Your task to perform on an android device: Open Google Image 0: 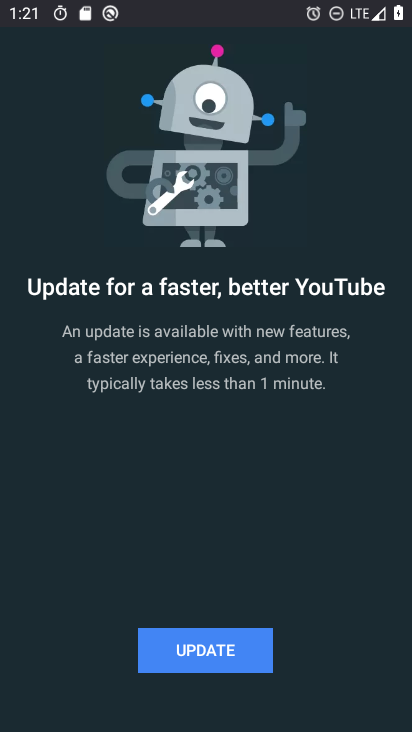
Step 0: press home button
Your task to perform on an android device: Open Google Image 1: 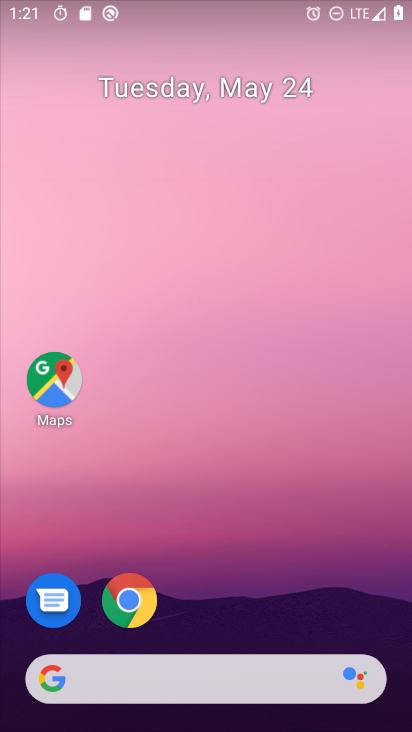
Step 1: drag from (237, 553) to (262, 102)
Your task to perform on an android device: Open Google Image 2: 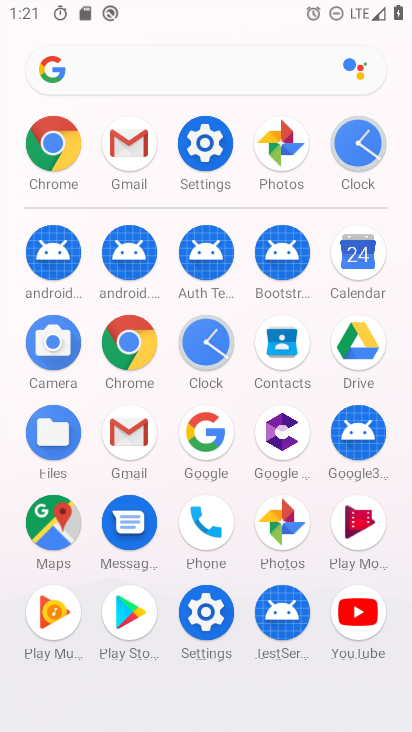
Step 2: click (215, 443)
Your task to perform on an android device: Open Google Image 3: 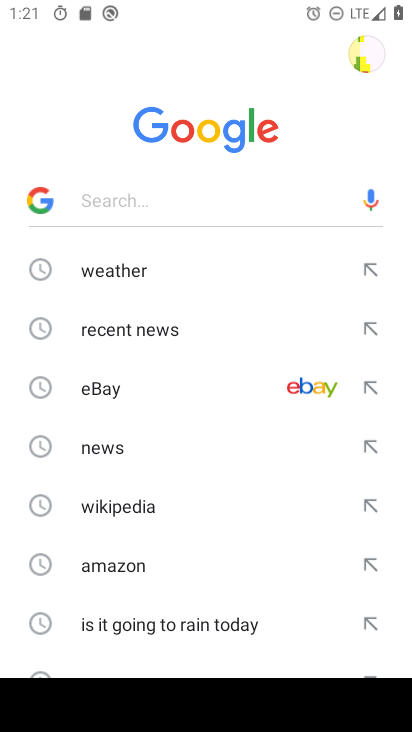
Step 3: task complete